Your task to perform on an android device: Open Chrome and go to settings Image 0: 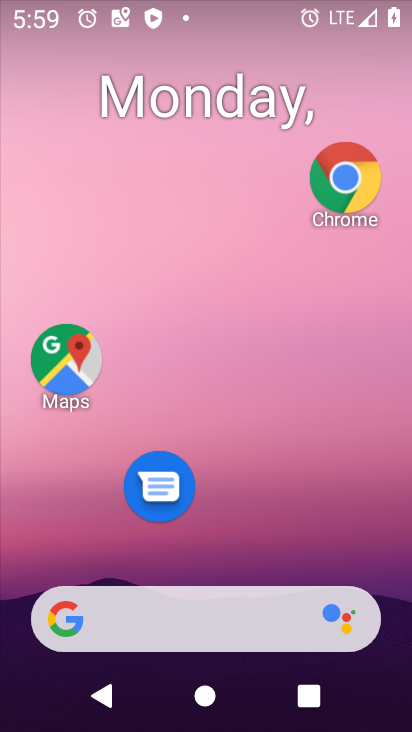
Step 0: drag from (272, 465) to (347, 51)
Your task to perform on an android device: Open Chrome and go to settings Image 1: 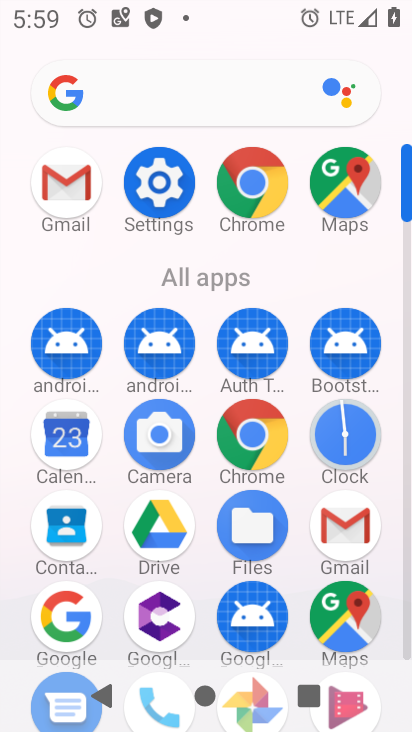
Step 1: click (238, 446)
Your task to perform on an android device: Open Chrome and go to settings Image 2: 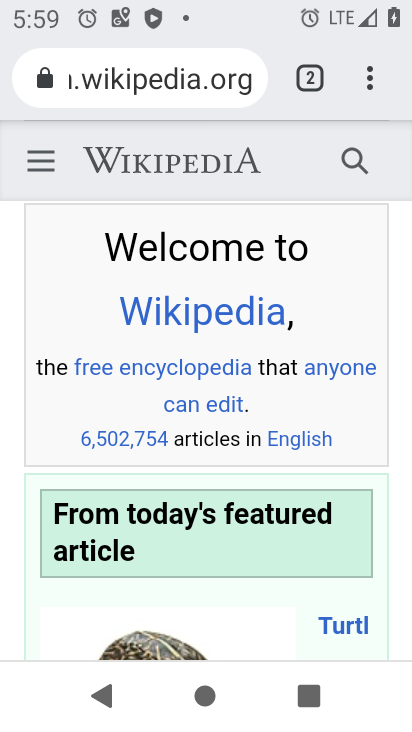
Step 2: click (12, 643)
Your task to perform on an android device: Open Chrome and go to settings Image 3: 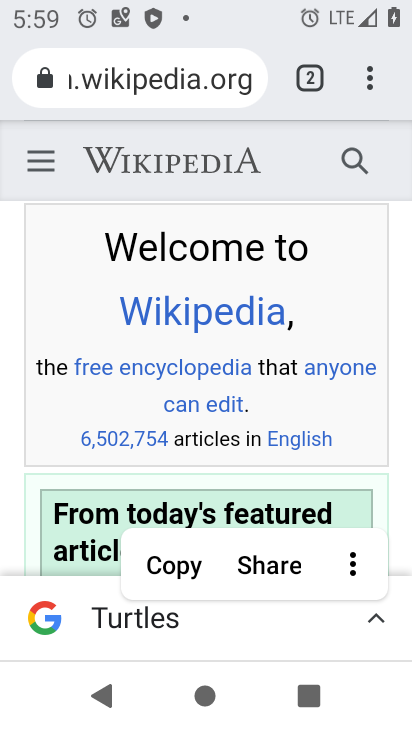
Step 3: press home button
Your task to perform on an android device: Open Chrome and go to settings Image 4: 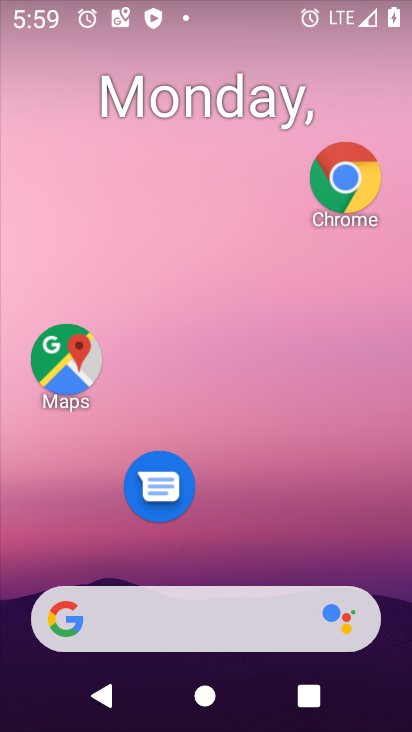
Step 4: click (366, 168)
Your task to perform on an android device: Open Chrome and go to settings Image 5: 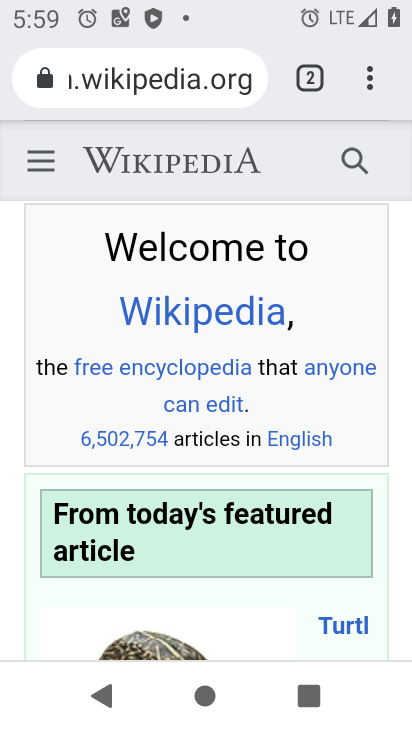
Step 5: task complete